Your task to perform on an android device: open app "Google Docs" (install if not already installed) Image 0: 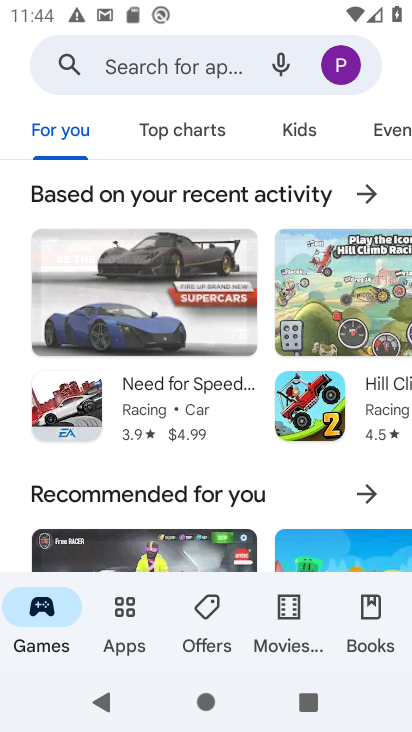
Step 0: click (194, 67)
Your task to perform on an android device: open app "Google Docs" (install if not already installed) Image 1: 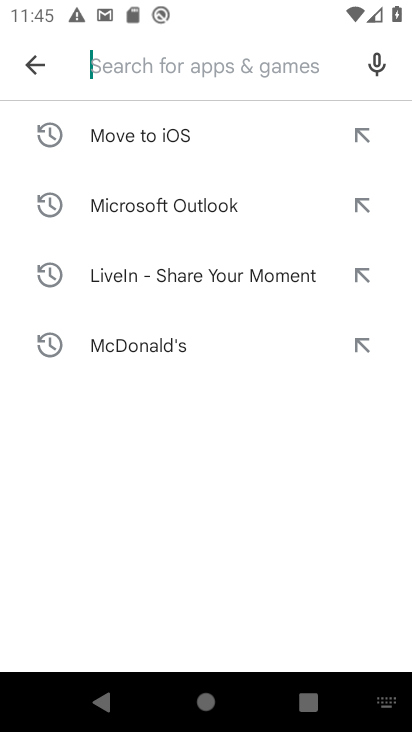
Step 1: type "Google Docs"
Your task to perform on an android device: open app "Google Docs" (install if not already installed) Image 2: 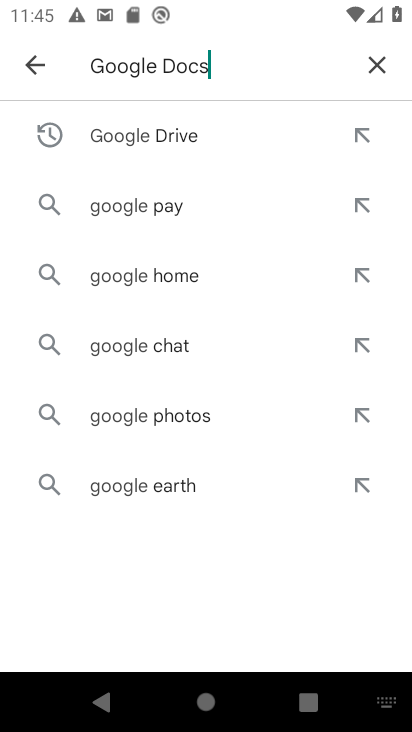
Step 2: press enter
Your task to perform on an android device: open app "Google Docs" (install if not already installed) Image 3: 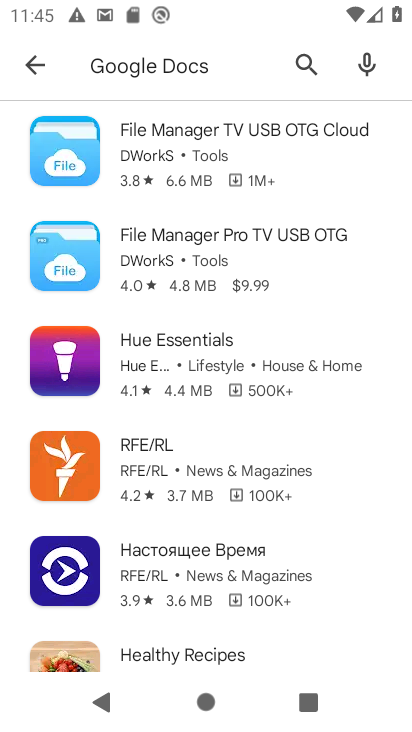
Step 3: task complete